Your task to perform on an android device: set an alarm Image 0: 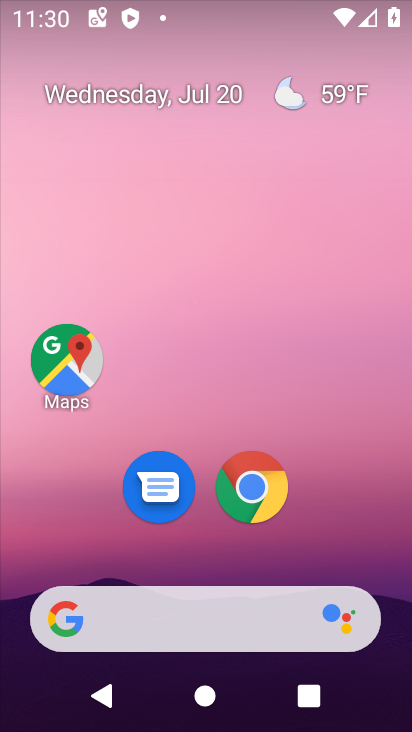
Step 0: drag from (371, 530) to (367, 71)
Your task to perform on an android device: set an alarm Image 1: 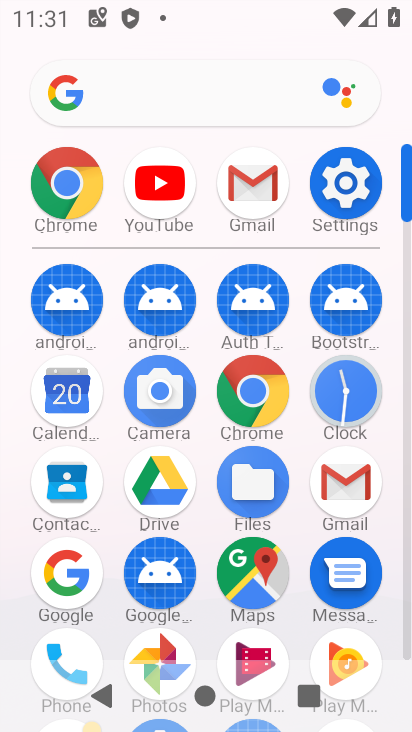
Step 1: click (366, 388)
Your task to perform on an android device: set an alarm Image 2: 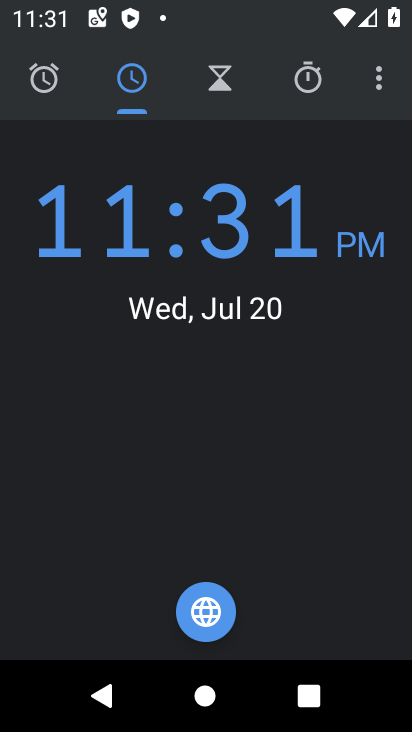
Step 2: click (53, 90)
Your task to perform on an android device: set an alarm Image 3: 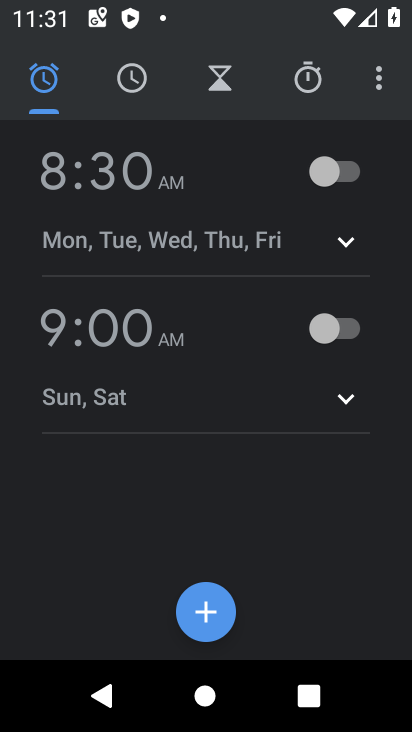
Step 3: click (208, 603)
Your task to perform on an android device: set an alarm Image 4: 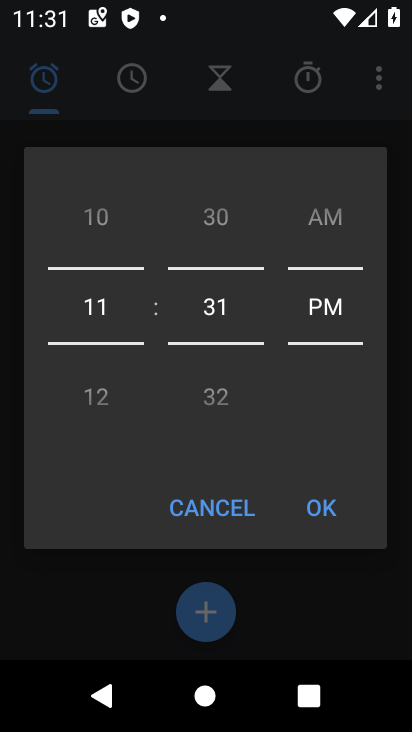
Step 4: click (310, 511)
Your task to perform on an android device: set an alarm Image 5: 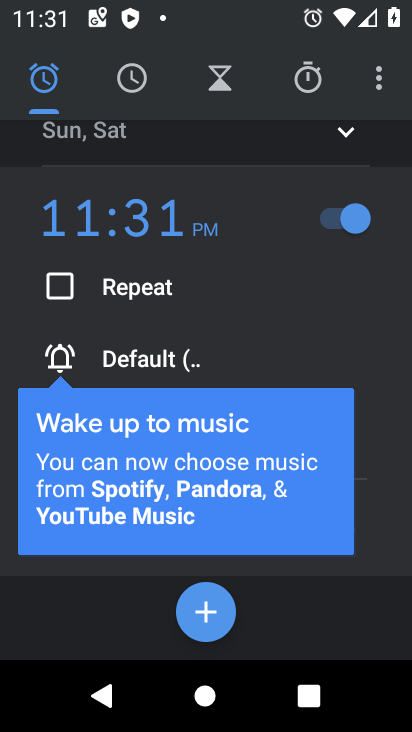
Step 5: task complete